Your task to perform on an android device: What's a good restaurant in Denver? Image 0: 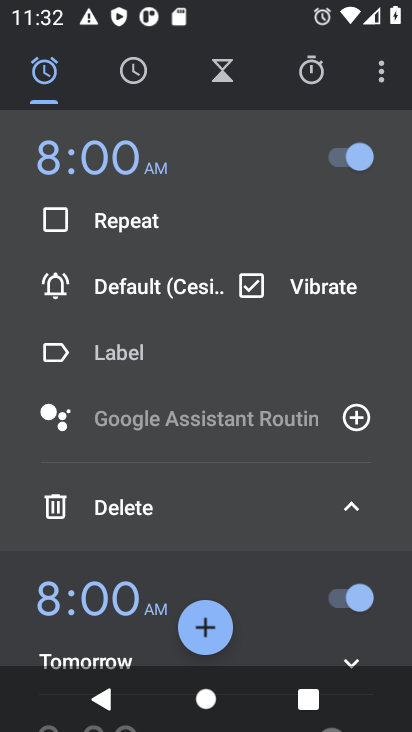
Step 0: press home button
Your task to perform on an android device: What's a good restaurant in Denver? Image 1: 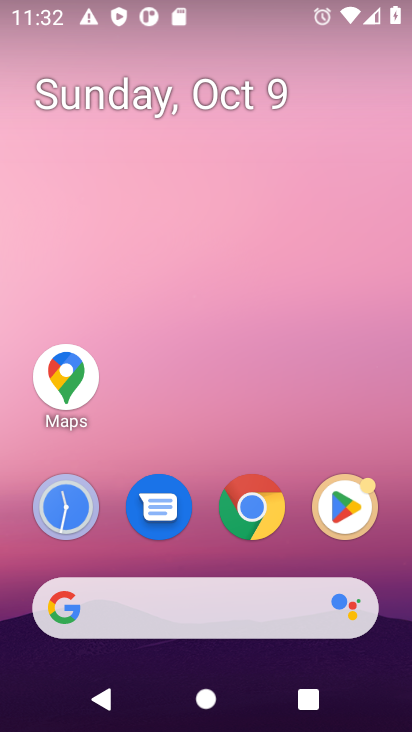
Step 1: click (224, 603)
Your task to perform on an android device: What's a good restaurant in Denver? Image 2: 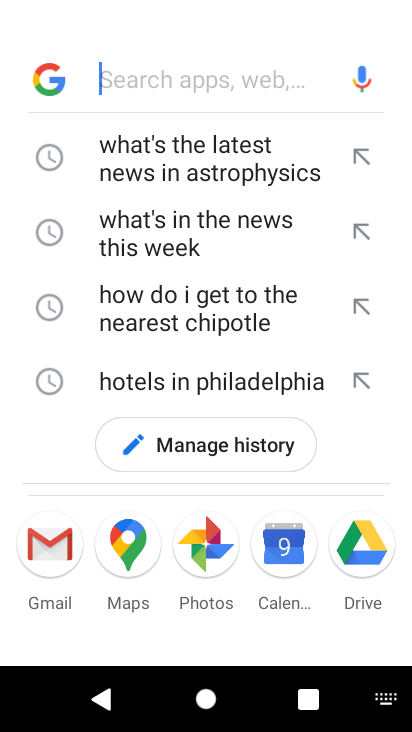
Step 2: type "What's a good restaurant in Denver"
Your task to perform on an android device: What's a good restaurant in Denver? Image 3: 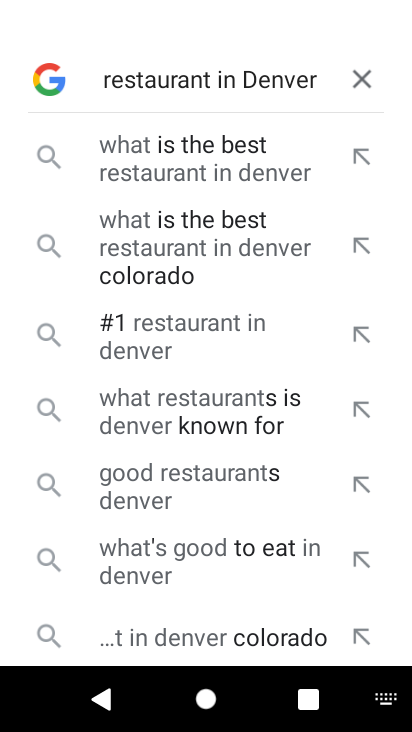
Step 3: press enter
Your task to perform on an android device: What's a good restaurant in Denver? Image 4: 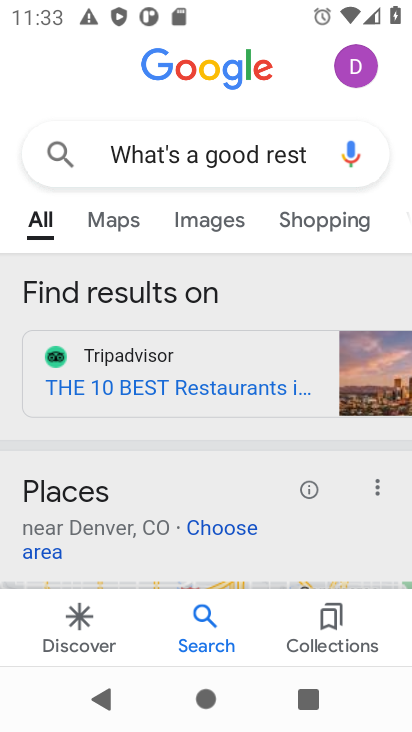
Step 4: task complete